Your task to perform on an android device: Open accessibility settings Image 0: 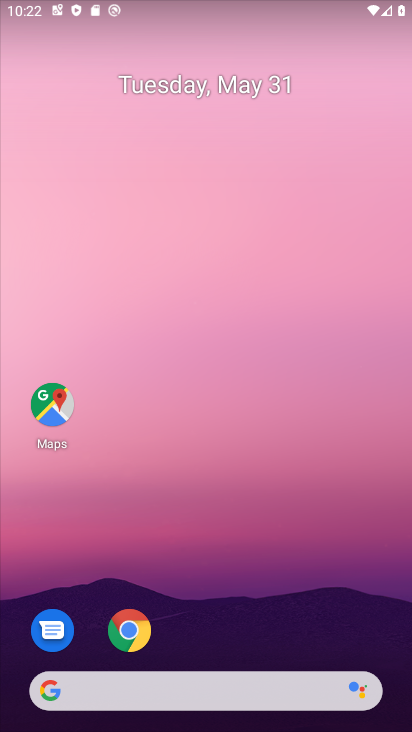
Step 0: drag from (224, 547) to (304, 113)
Your task to perform on an android device: Open accessibility settings Image 1: 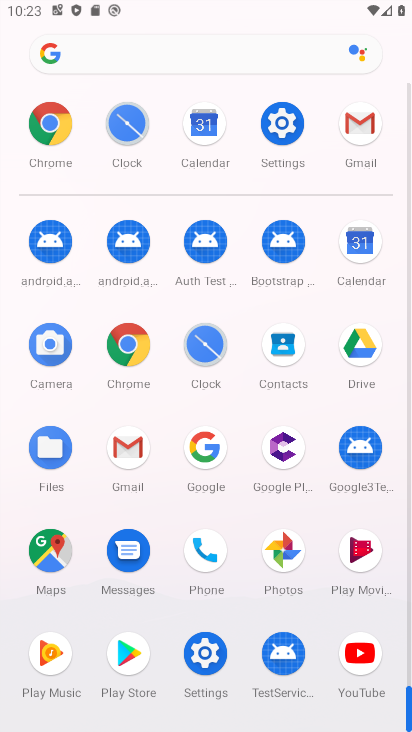
Step 1: click (282, 119)
Your task to perform on an android device: Open accessibility settings Image 2: 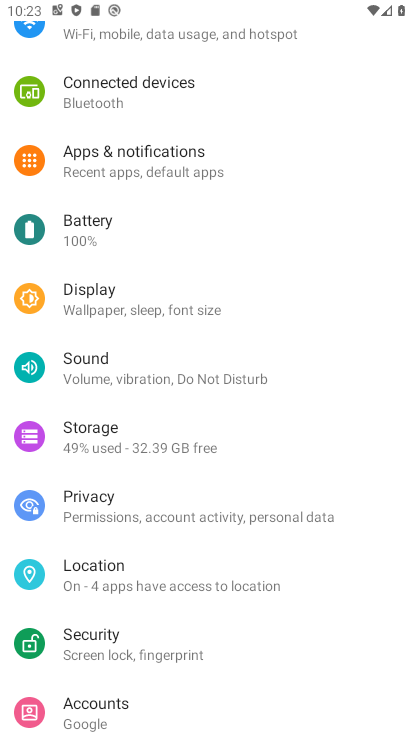
Step 2: drag from (194, 571) to (178, 251)
Your task to perform on an android device: Open accessibility settings Image 3: 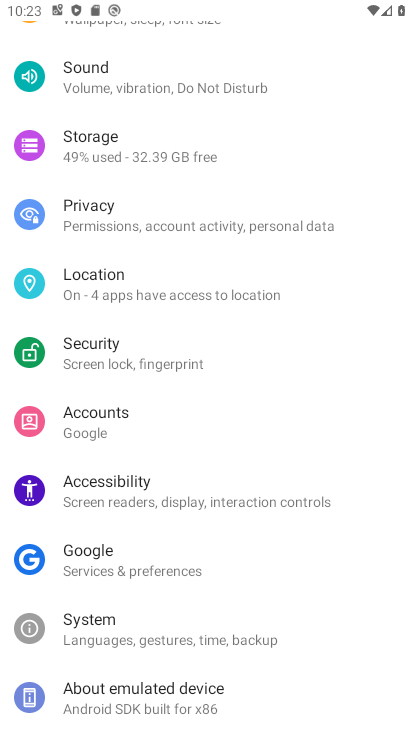
Step 3: click (214, 500)
Your task to perform on an android device: Open accessibility settings Image 4: 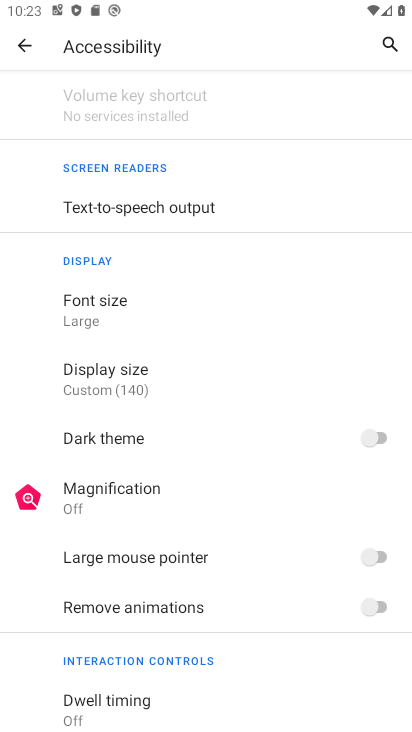
Step 4: task complete